Your task to perform on an android device: Search for vegetarian restaurants on Maps Image 0: 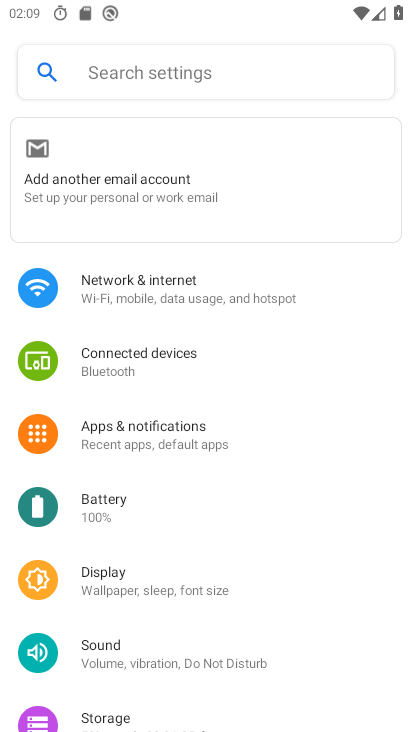
Step 0: press home button
Your task to perform on an android device: Search for vegetarian restaurants on Maps Image 1: 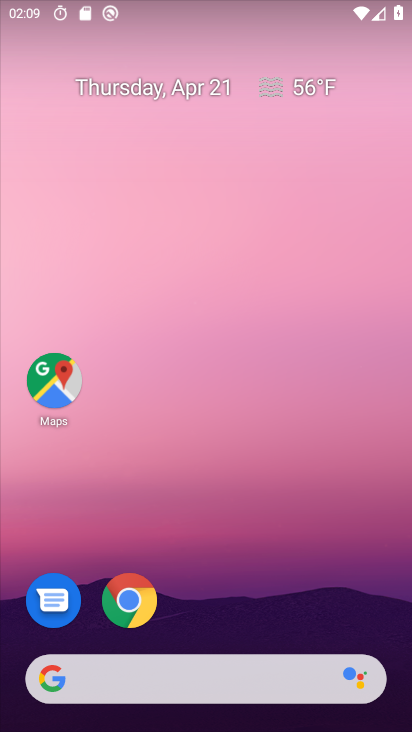
Step 1: click (52, 382)
Your task to perform on an android device: Search for vegetarian restaurants on Maps Image 2: 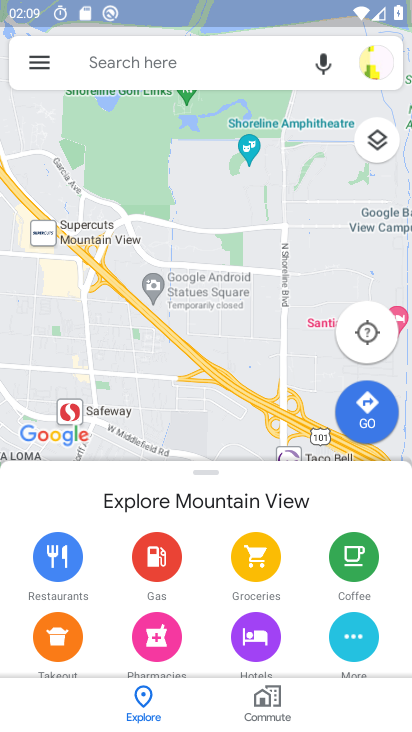
Step 2: click (163, 59)
Your task to perform on an android device: Search for vegetarian restaurants on Maps Image 3: 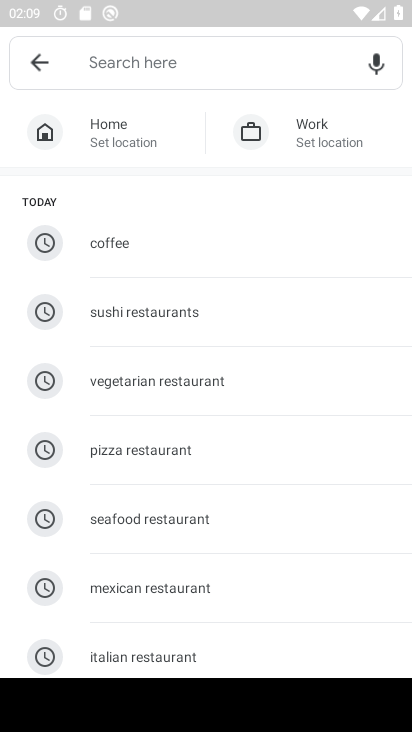
Step 3: click (184, 378)
Your task to perform on an android device: Search for vegetarian restaurants on Maps Image 4: 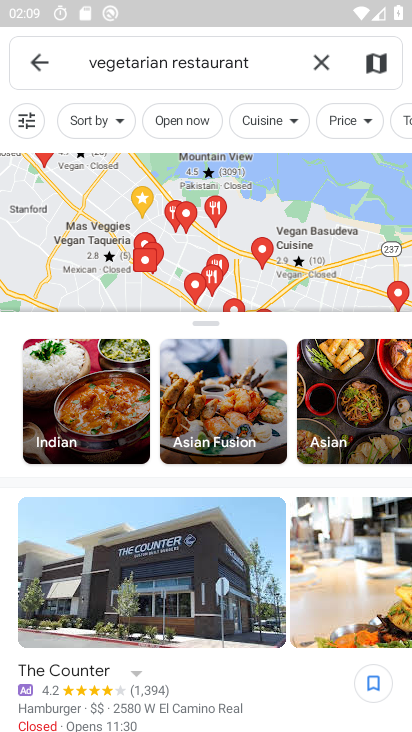
Step 4: task complete